Your task to perform on an android device: Open Chrome and go to settings Image 0: 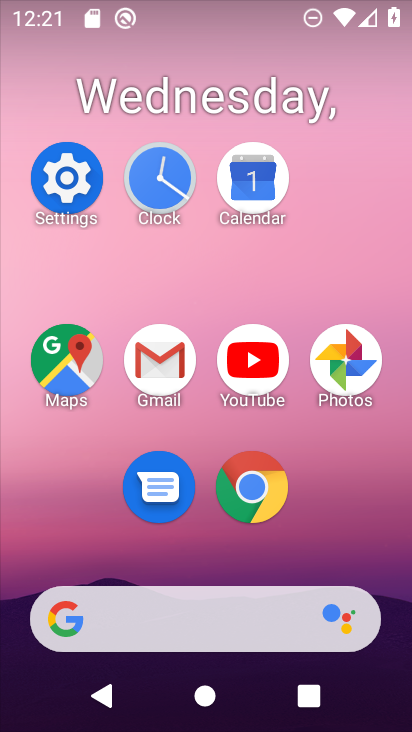
Step 0: click (263, 464)
Your task to perform on an android device: Open Chrome and go to settings Image 1: 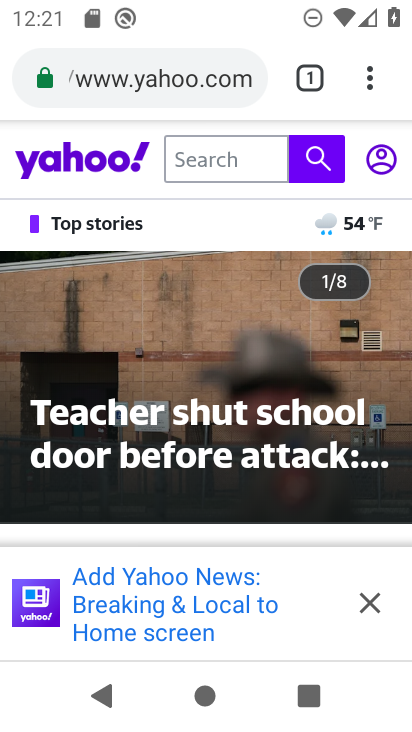
Step 1: click (379, 69)
Your task to perform on an android device: Open Chrome and go to settings Image 2: 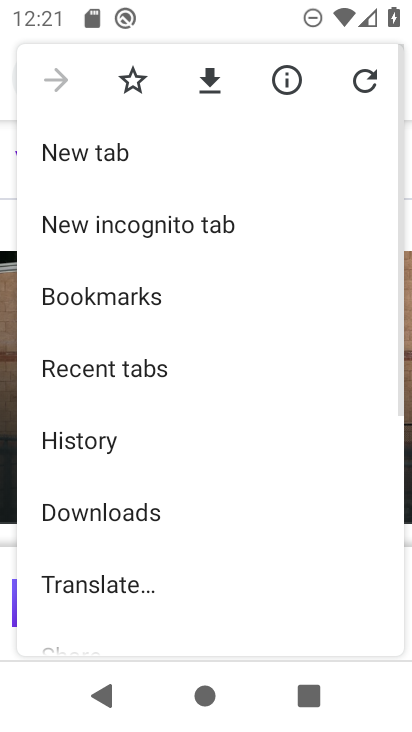
Step 2: drag from (142, 500) to (239, 184)
Your task to perform on an android device: Open Chrome and go to settings Image 3: 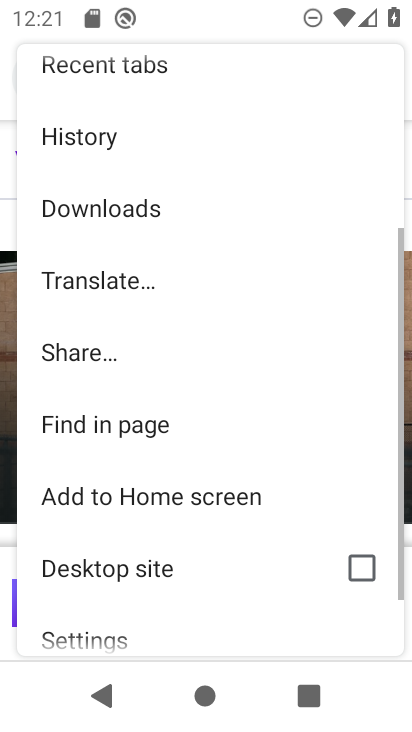
Step 3: drag from (218, 544) to (250, 207)
Your task to perform on an android device: Open Chrome and go to settings Image 4: 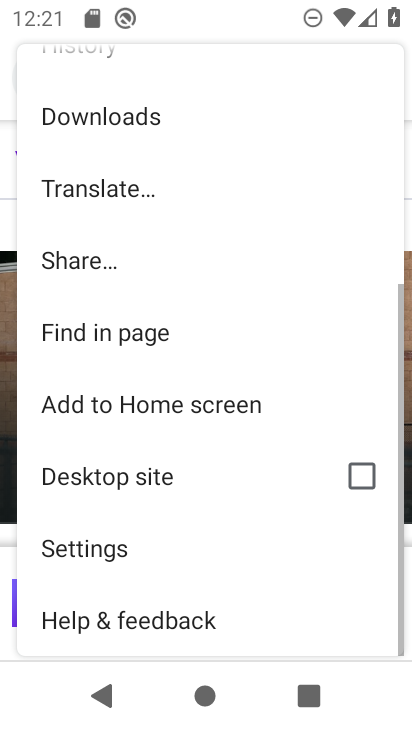
Step 4: click (149, 540)
Your task to perform on an android device: Open Chrome and go to settings Image 5: 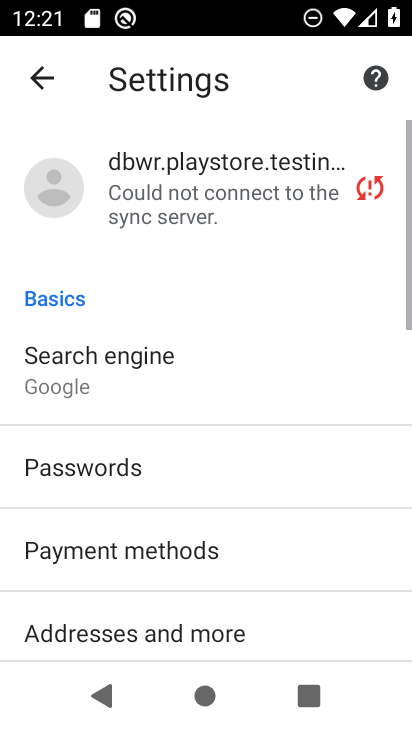
Step 5: task complete